Your task to perform on an android device: Open internet settings Image 0: 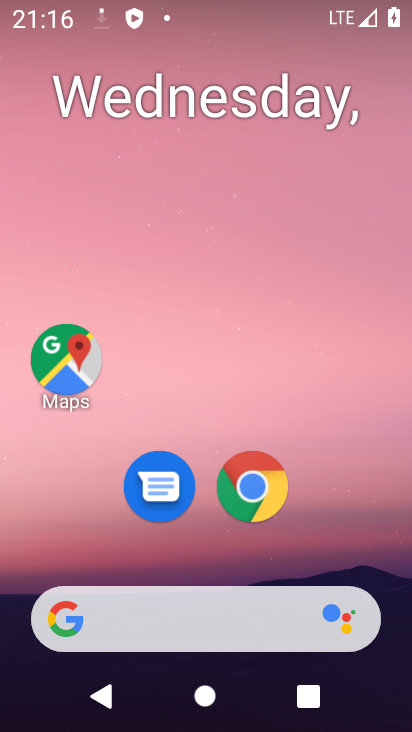
Step 0: drag from (173, 544) to (256, 54)
Your task to perform on an android device: Open internet settings Image 1: 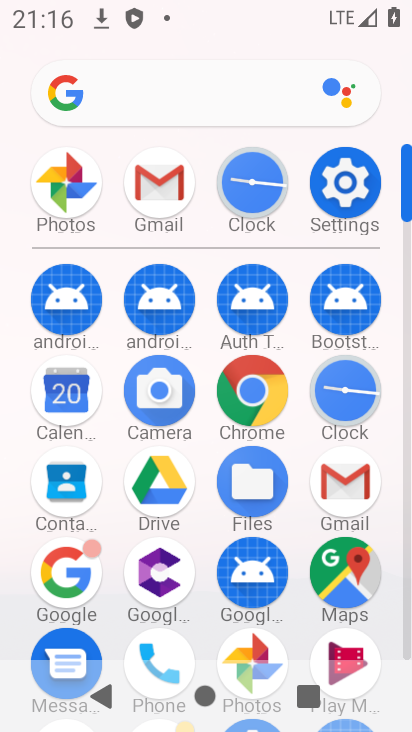
Step 1: click (355, 175)
Your task to perform on an android device: Open internet settings Image 2: 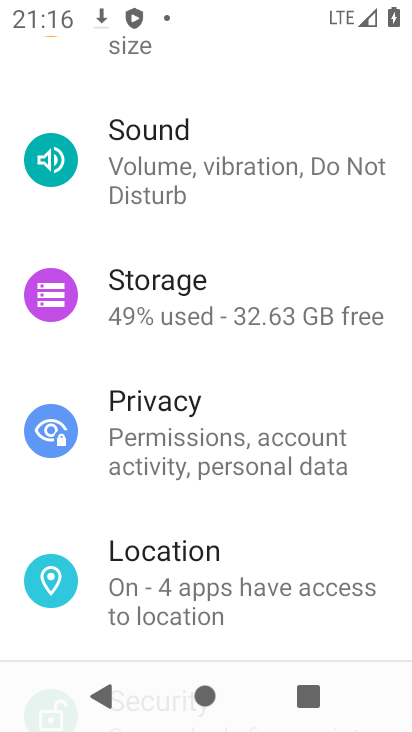
Step 2: drag from (287, 209) to (159, 706)
Your task to perform on an android device: Open internet settings Image 3: 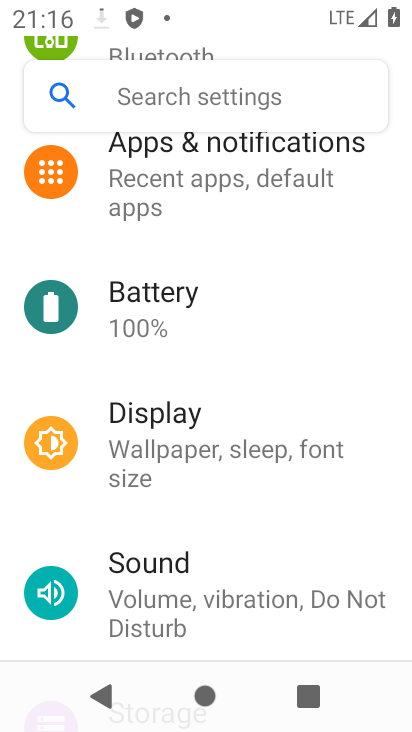
Step 3: drag from (263, 225) to (199, 719)
Your task to perform on an android device: Open internet settings Image 4: 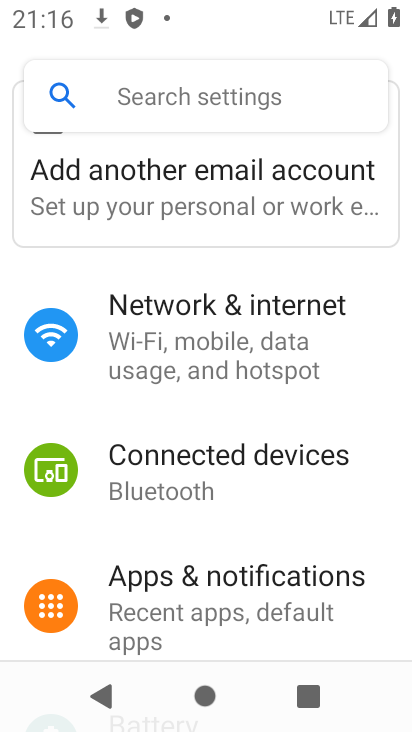
Step 4: drag from (248, 268) to (242, 435)
Your task to perform on an android device: Open internet settings Image 5: 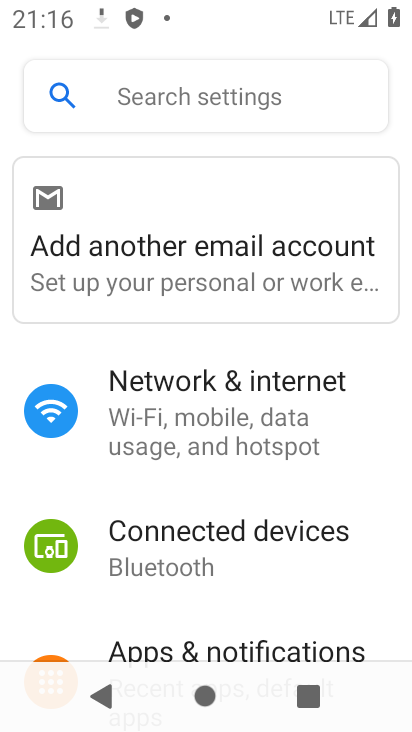
Step 5: click (201, 428)
Your task to perform on an android device: Open internet settings Image 6: 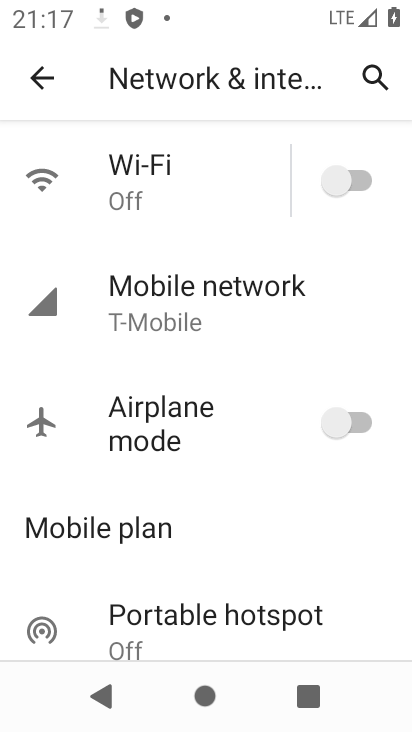
Step 6: task complete